Your task to perform on an android device: Go to Yahoo.com Image 0: 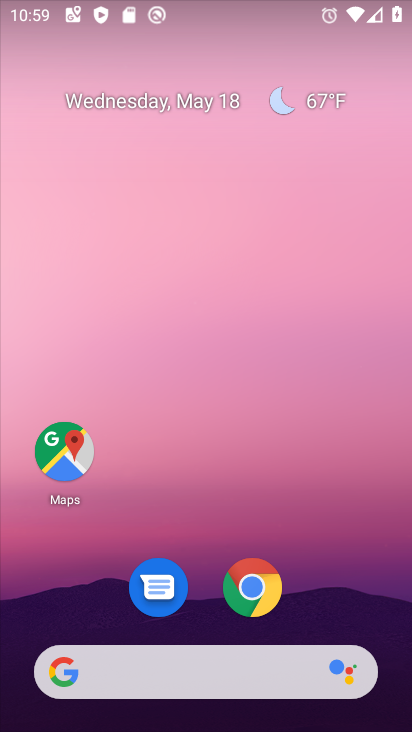
Step 0: click (264, 590)
Your task to perform on an android device: Go to Yahoo.com Image 1: 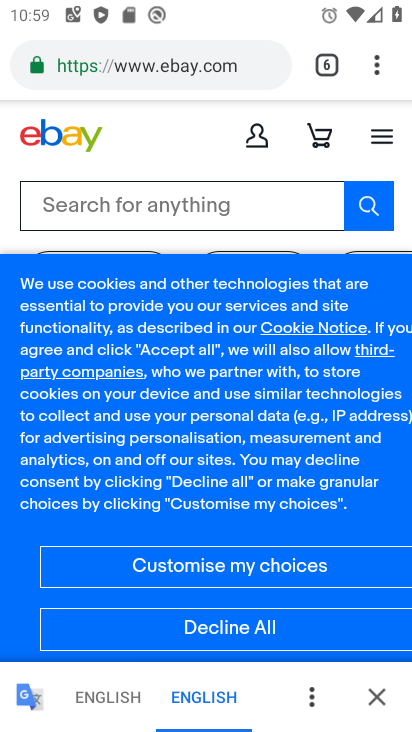
Step 1: click (317, 64)
Your task to perform on an android device: Go to Yahoo.com Image 2: 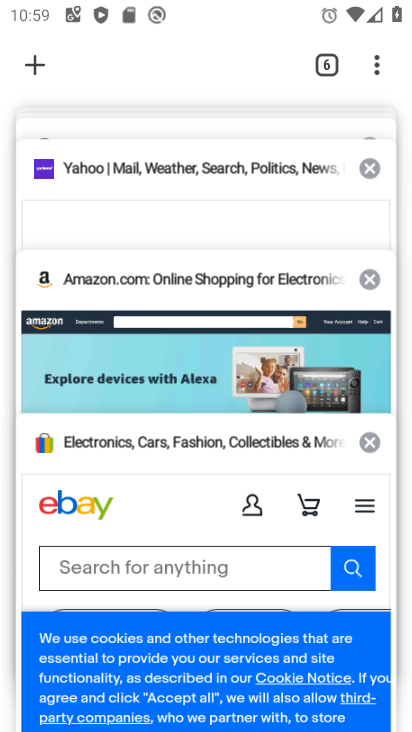
Step 2: click (222, 185)
Your task to perform on an android device: Go to Yahoo.com Image 3: 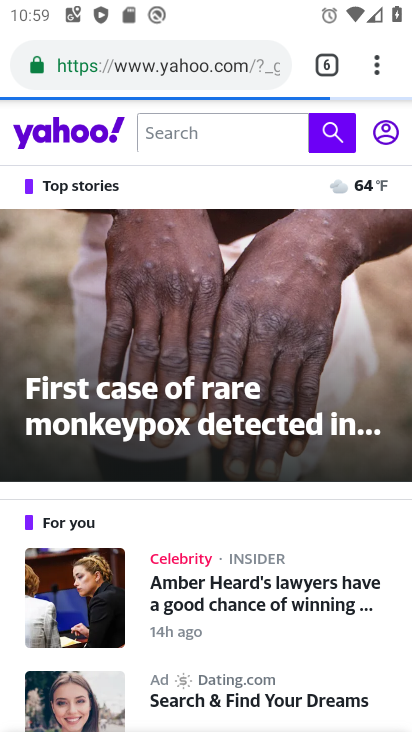
Step 3: task complete